Your task to perform on an android device: turn on data saver in the chrome app Image 0: 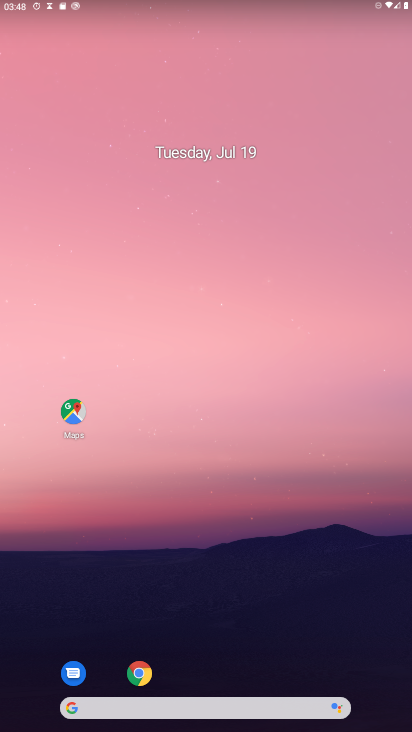
Step 0: drag from (218, 670) to (217, 136)
Your task to perform on an android device: turn on data saver in the chrome app Image 1: 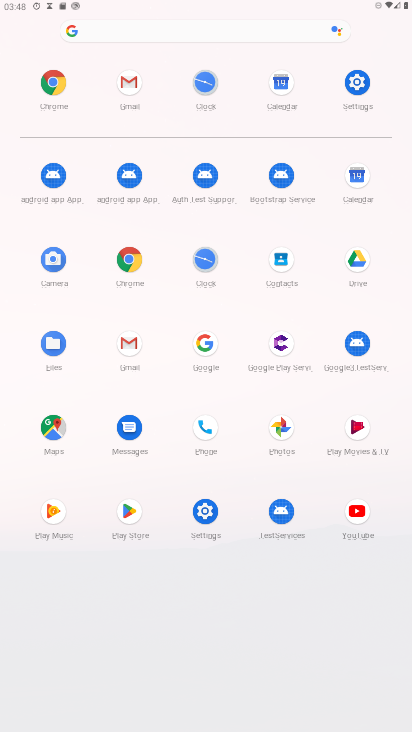
Step 1: click (133, 262)
Your task to perform on an android device: turn on data saver in the chrome app Image 2: 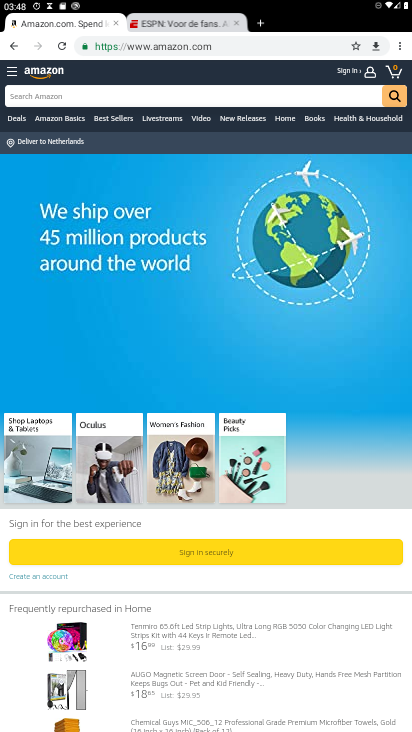
Step 2: click (399, 41)
Your task to perform on an android device: turn on data saver in the chrome app Image 3: 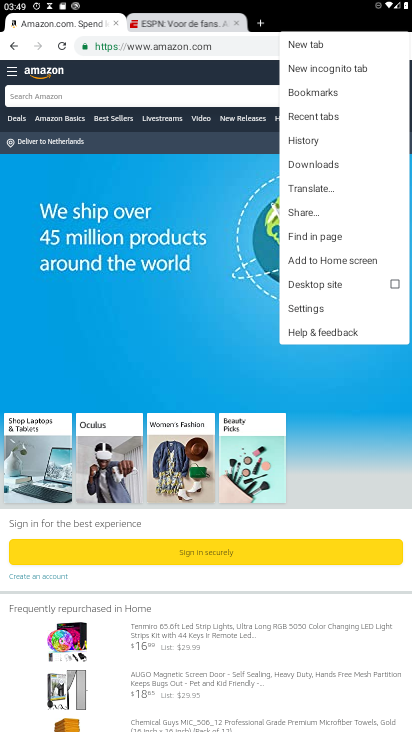
Step 3: click (309, 307)
Your task to perform on an android device: turn on data saver in the chrome app Image 4: 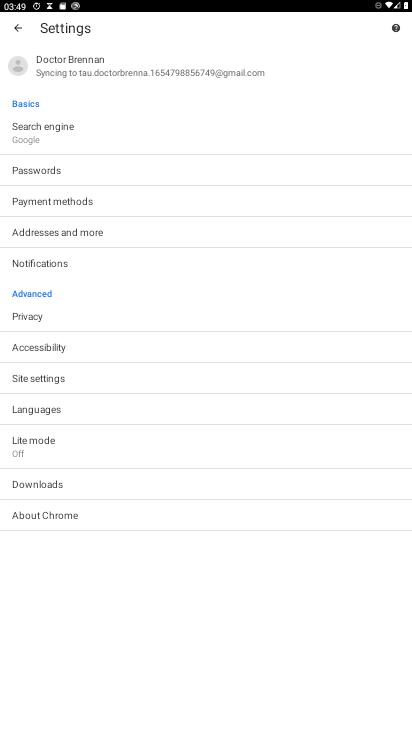
Step 4: click (47, 445)
Your task to perform on an android device: turn on data saver in the chrome app Image 5: 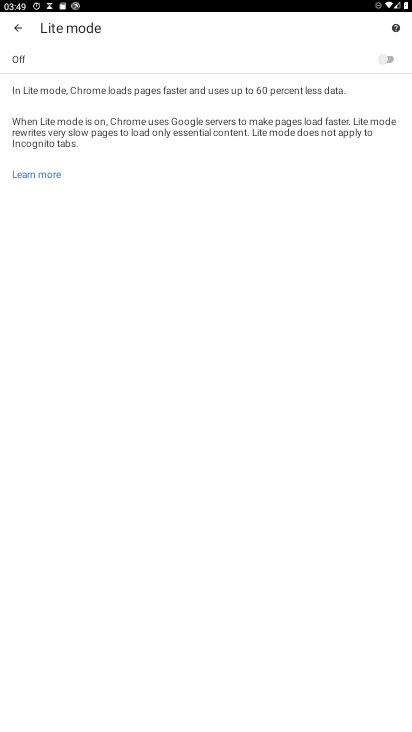
Step 5: click (360, 66)
Your task to perform on an android device: turn on data saver in the chrome app Image 6: 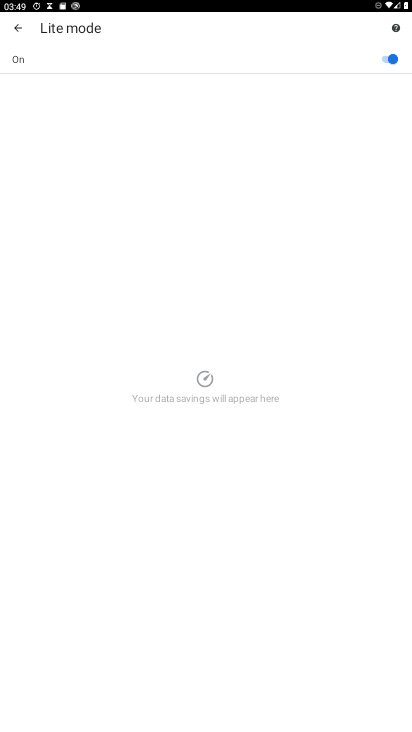
Step 6: task complete